Your task to perform on an android device: uninstall "Google News" Image 0: 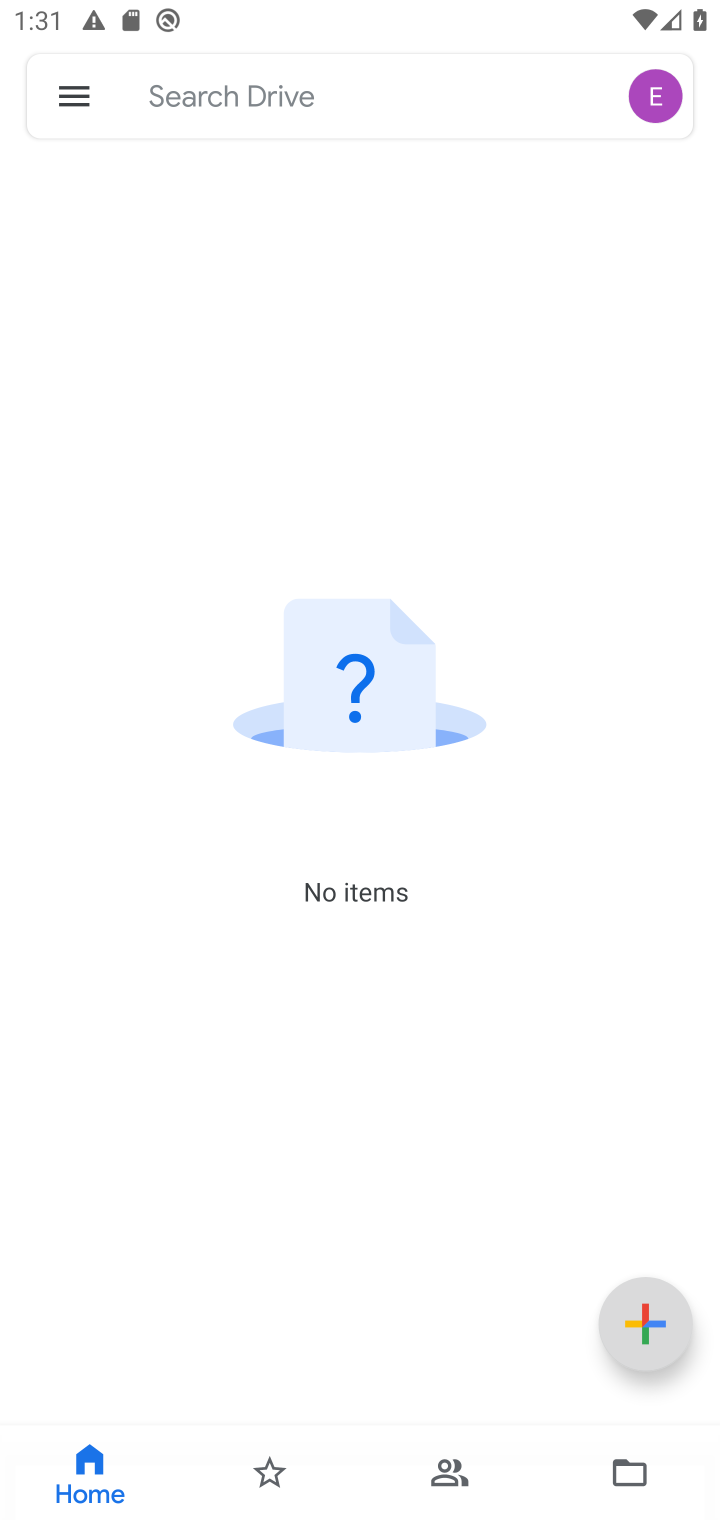
Step 0: press back button
Your task to perform on an android device: uninstall "Google News" Image 1: 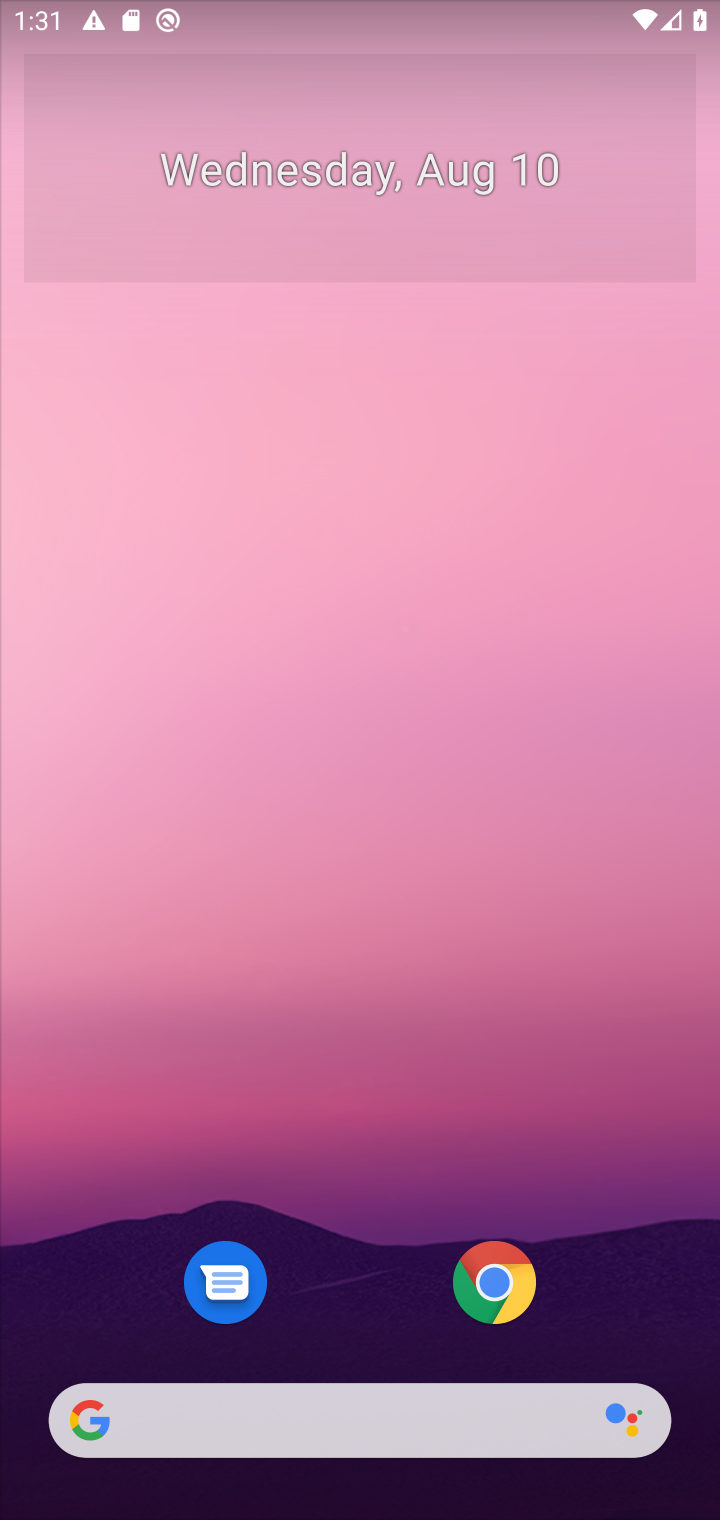
Step 1: drag from (377, 1273) to (385, 302)
Your task to perform on an android device: uninstall "Google News" Image 2: 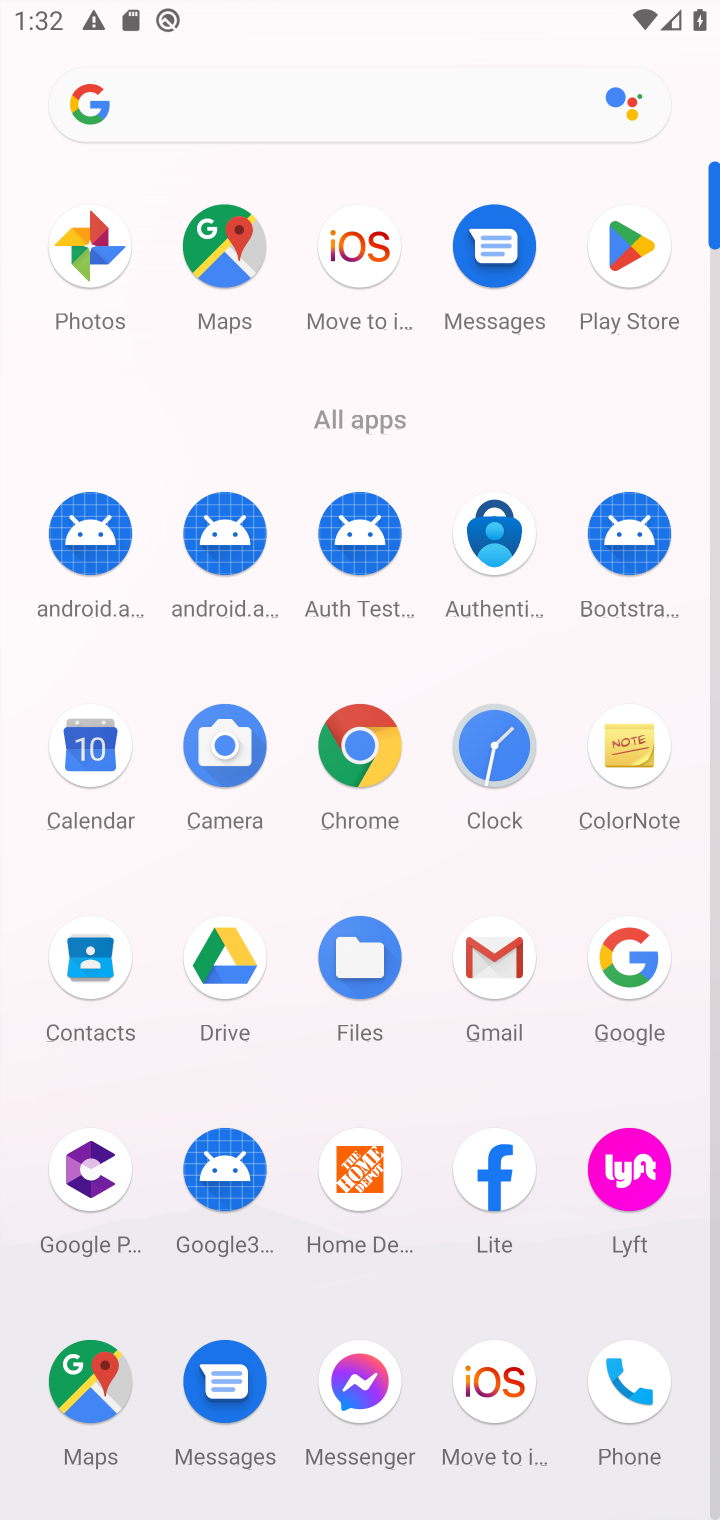
Step 2: click (649, 278)
Your task to perform on an android device: uninstall "Google News" Image 3: 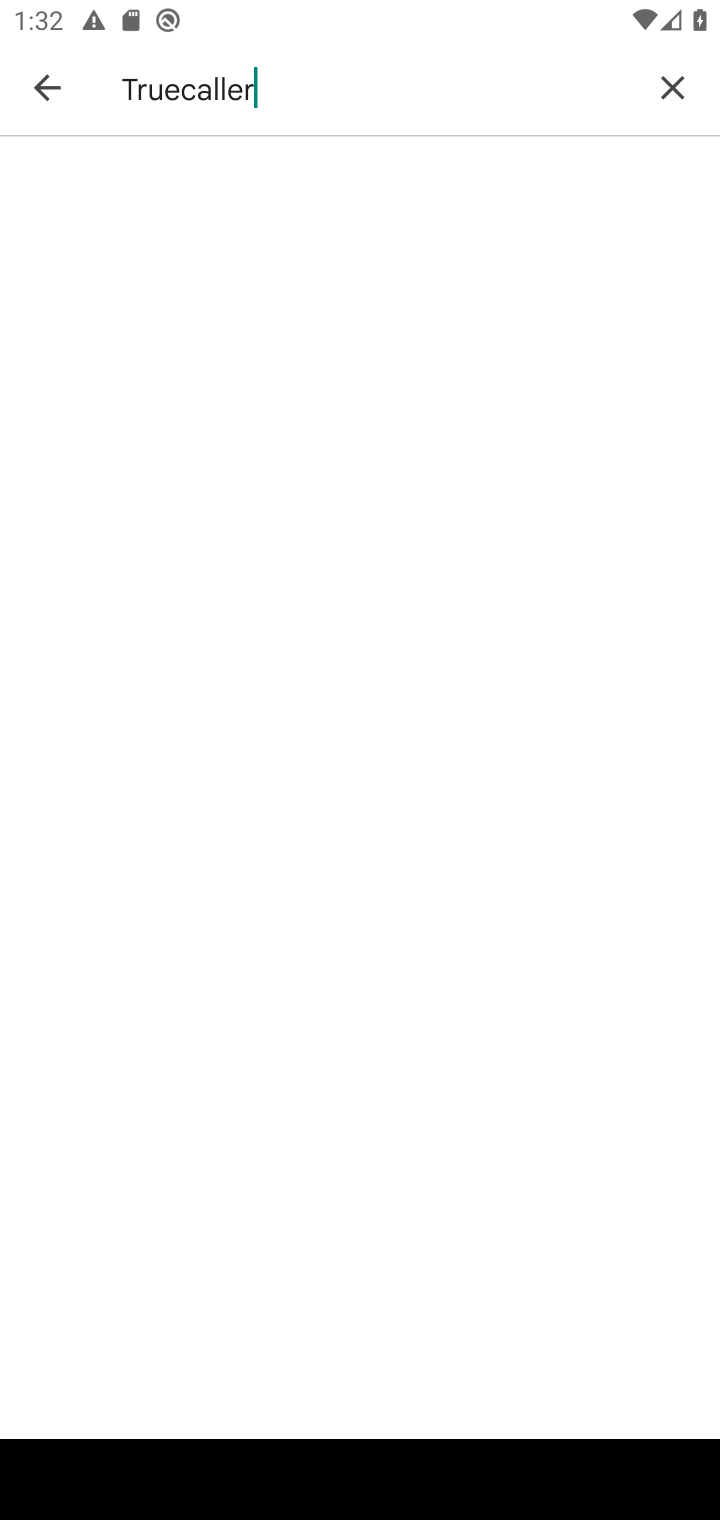
Step 3: click (56, 92)
Your task to perform on an android device: uninstall "Google News" Image 4: 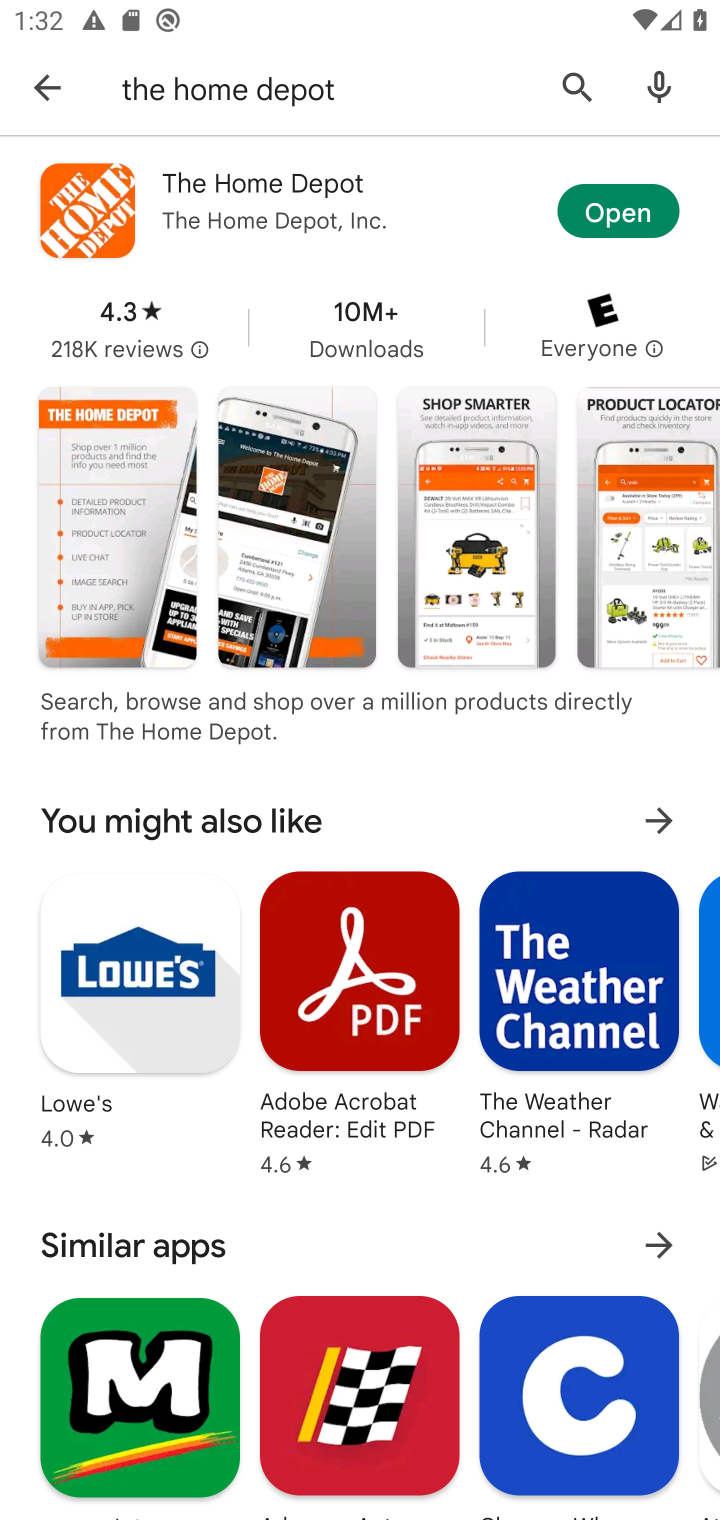
Step 4: click (579, 94)
Your task to perform on an android device: uninstall "Google News" Image 5: 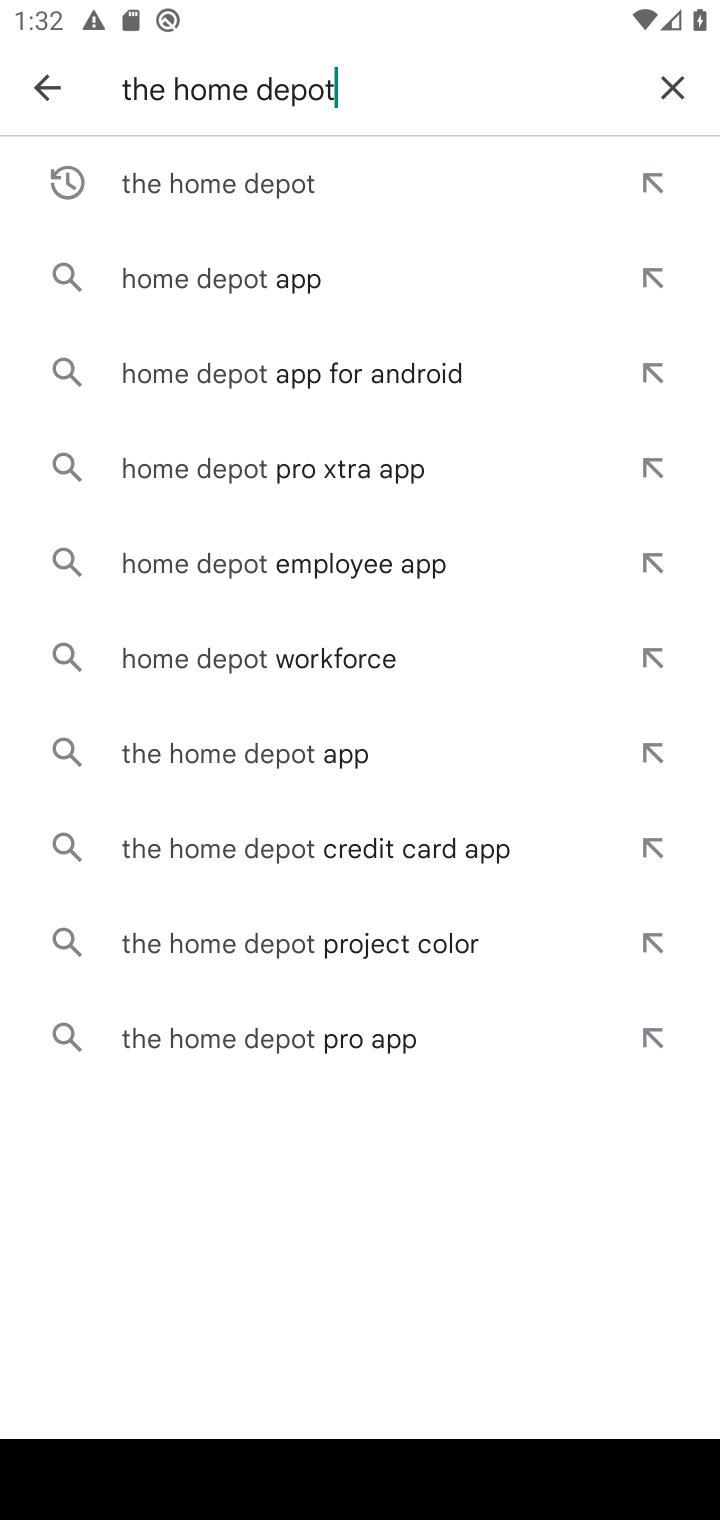
Step 5: click (673, 86)
Your task to perform on an android device: uninstall "Google News" Image 6: 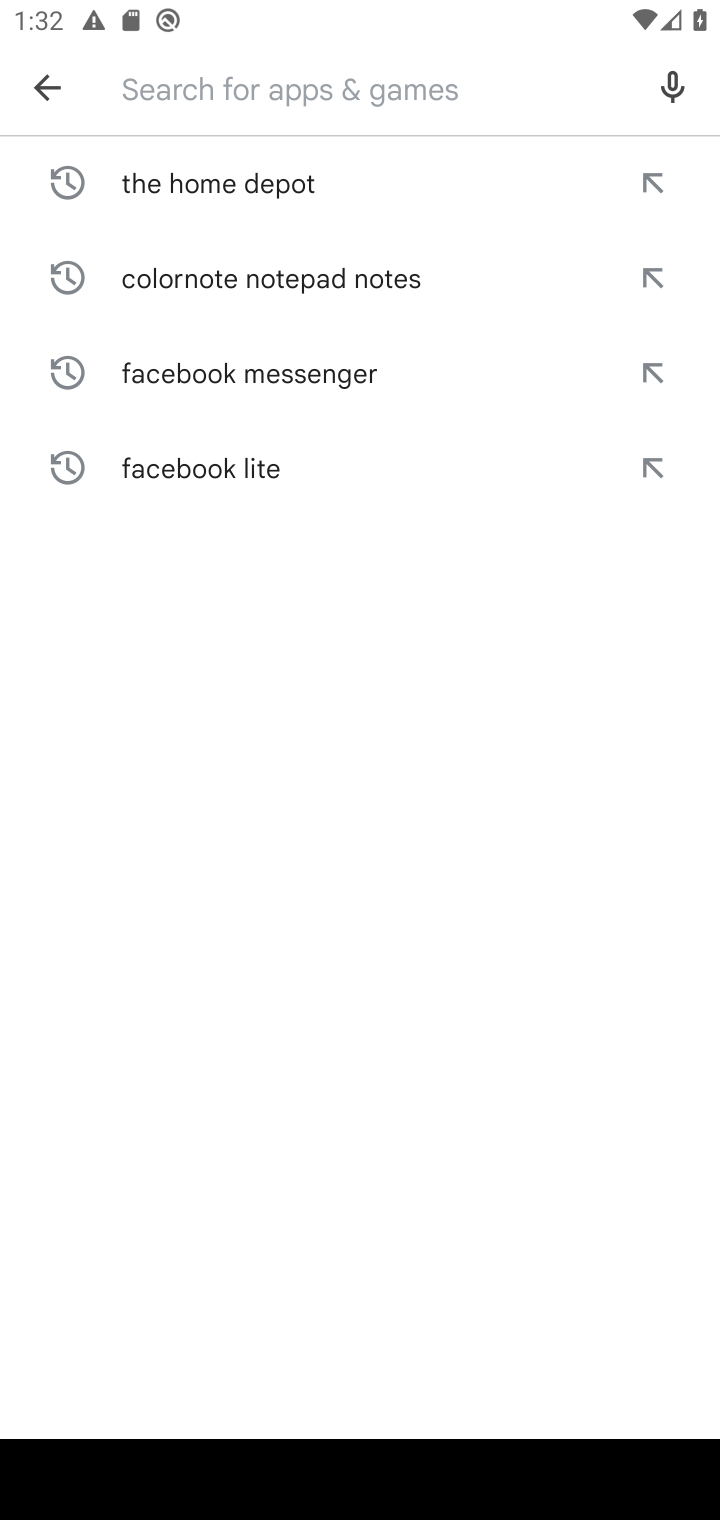
Step 6: type "Google News"
Your task to perform on an android device: uninstall "Google News" Image 7: 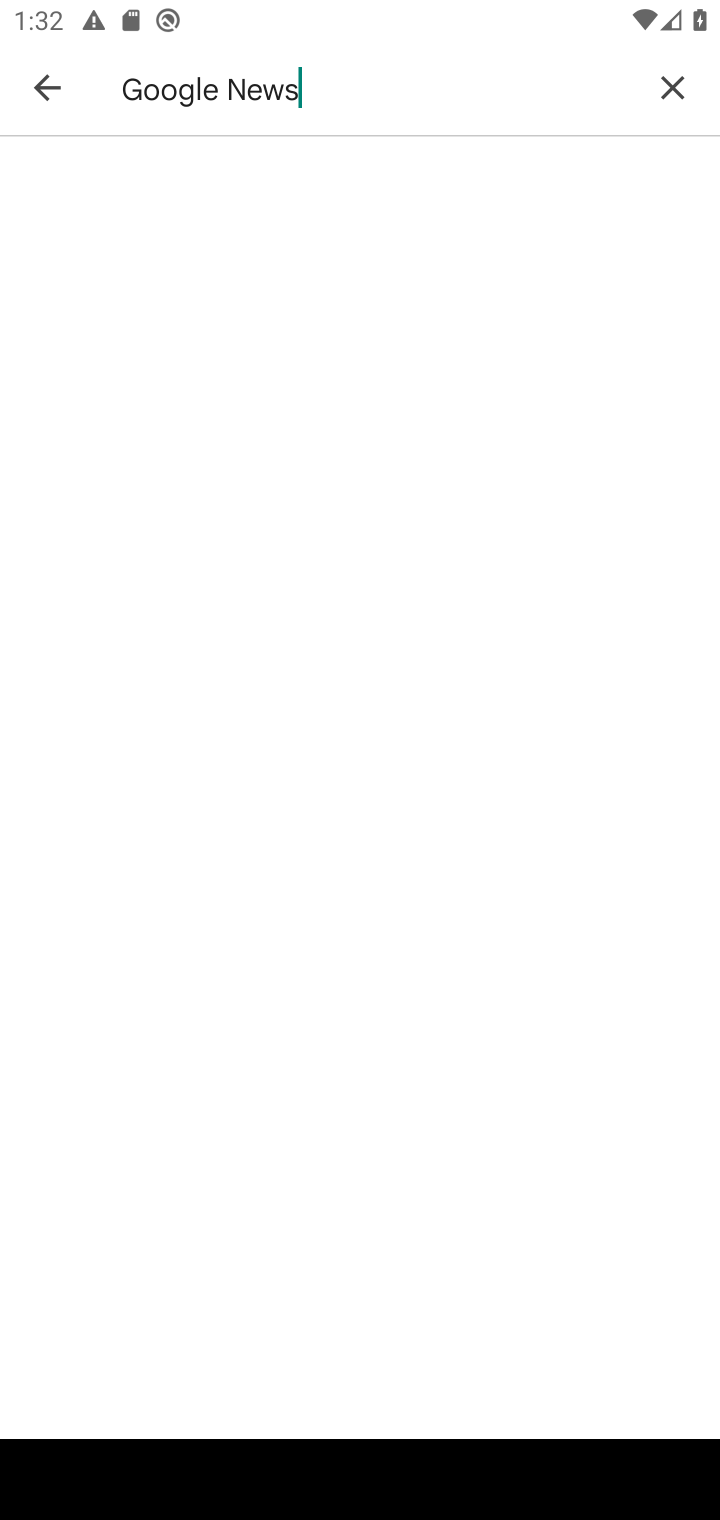
Step 7: type ""
Your task to perform on an android device: uninstall "Google News" Image 8: 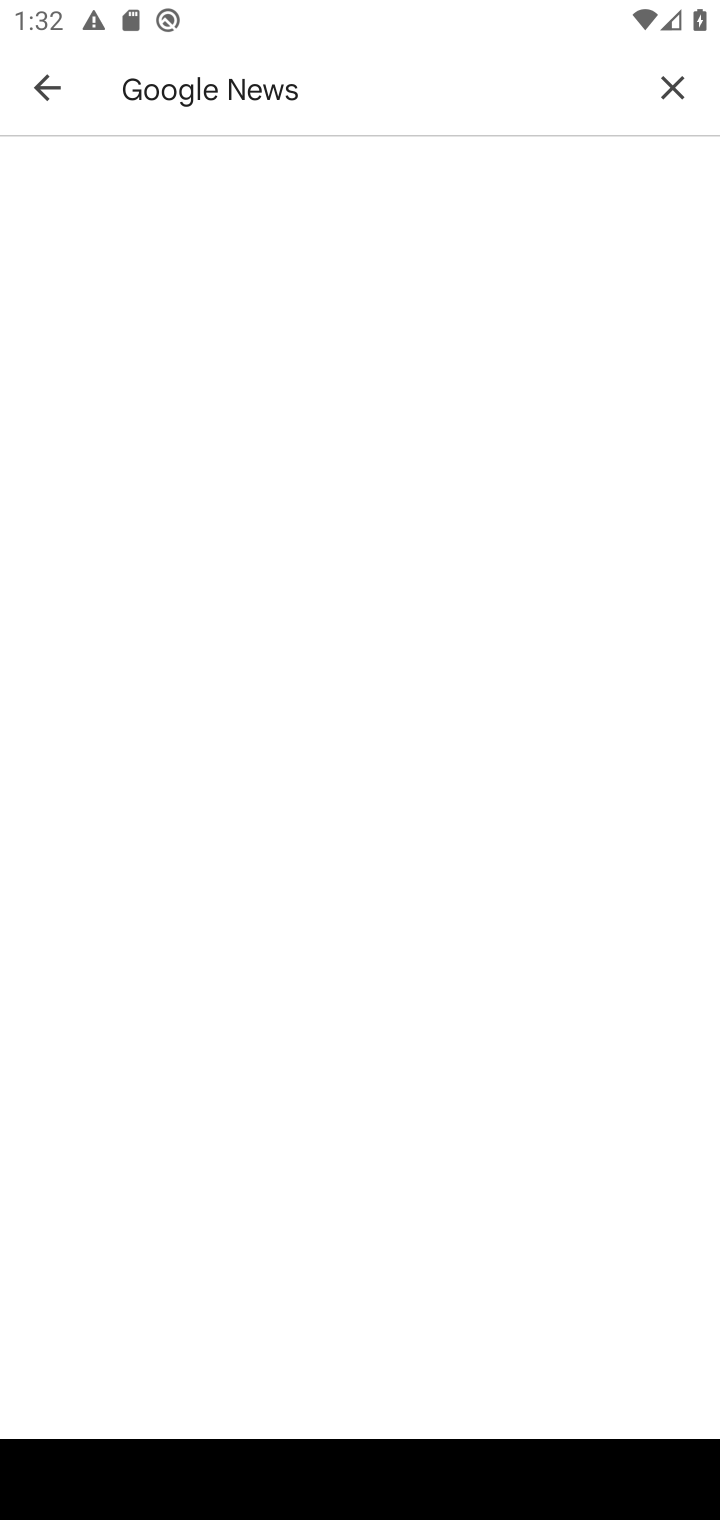
Step 8: task complete